Your task to perform on an android device: Open privacy settings Image 0: 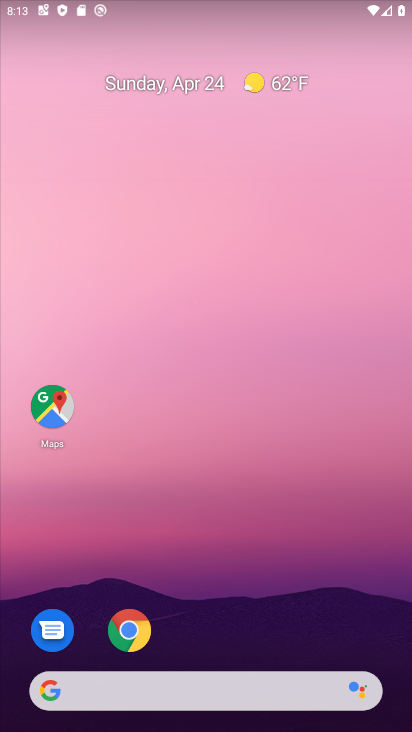
Step 0: drag from (230, 537) to (193, 29)
Your task to perform on an android device: Open privacy settings Image 1: 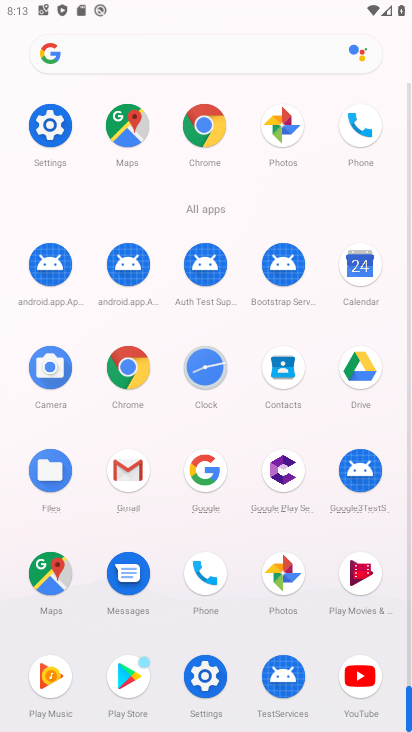
Step 1: drag from (5, 556) to (16, 366)
Your task to perform on an android device: Open privacy settings Image 2: 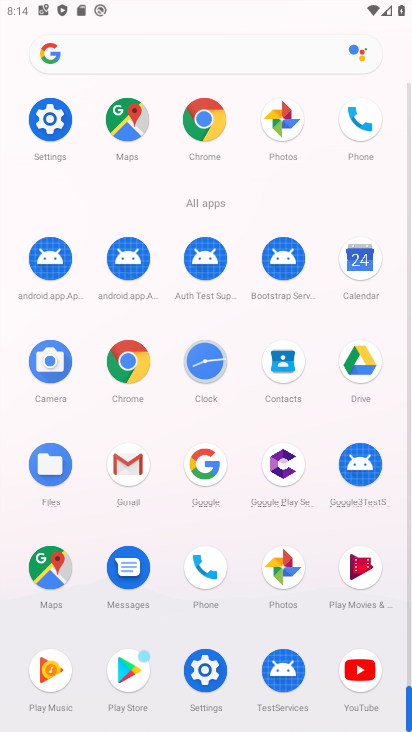
Step 2: click (126, 363)
Your task to perform on an android device: Open privacy settings Image 3: 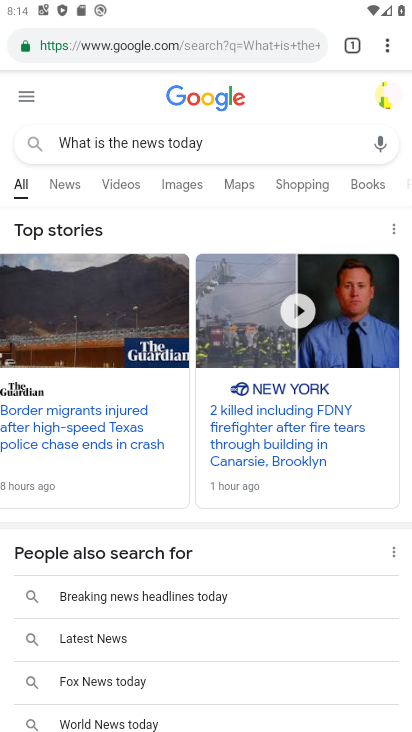
Step 3: drag from (388, 50) to (238, 555)
Your task to perform on an android device: Open privacy settings Image 4: 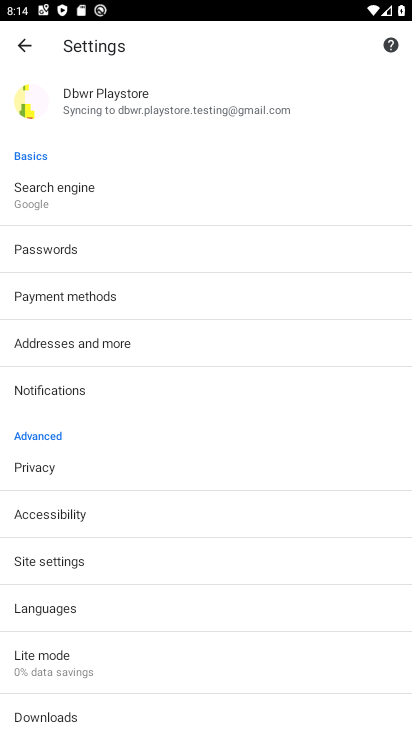
Step 4: click (65, 462)
Your task to perform on an android device: Open privacy settings Image 5: 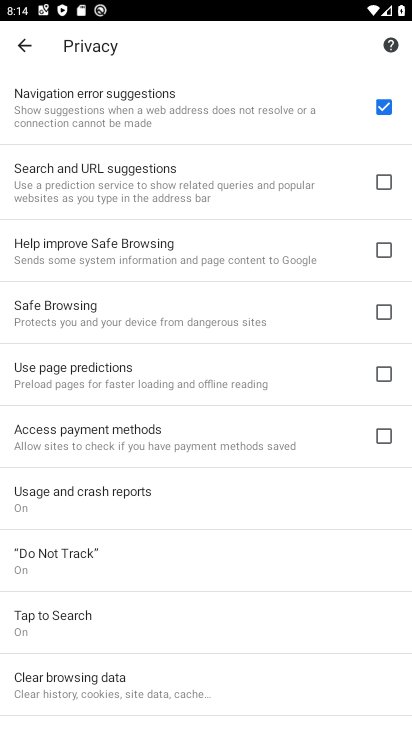
Step 5: task complete